Your task to perform on an android device: Go to Yahoo.com Image 0: 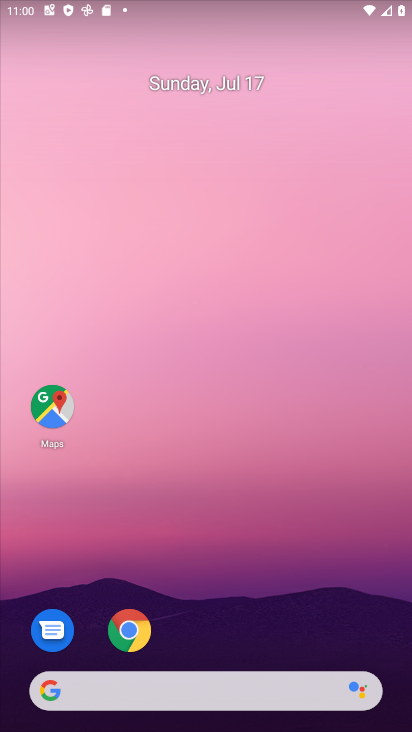
Step 0: drag from (225, 646) to (248, 135)
Your task to perform on an android device: Go to Yahoo.com Image 1: 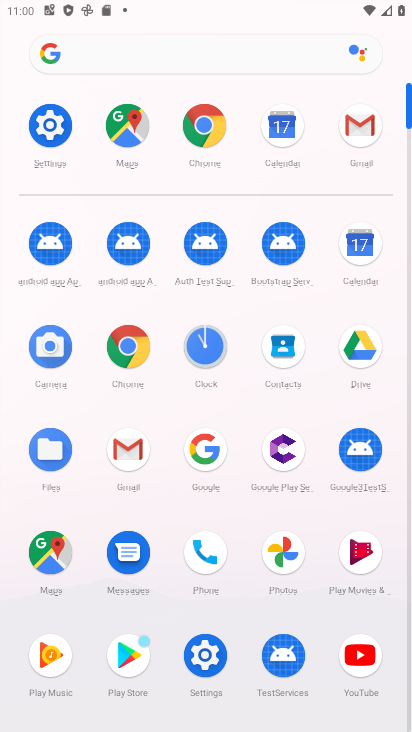
Step 1: click (216, 656)
Your task to perform on an android device: Go to Yahoo.com Image 2: 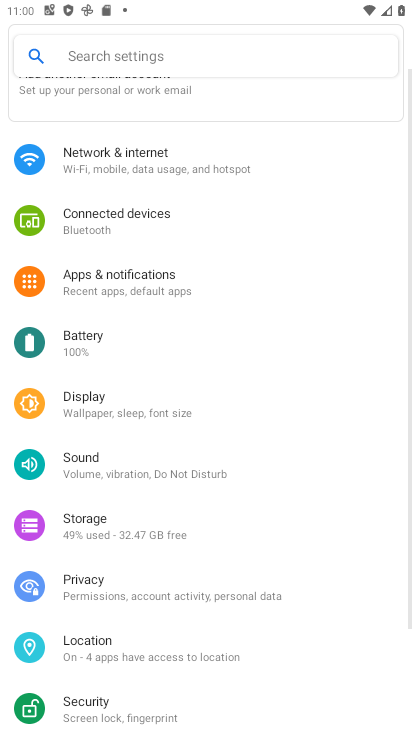
Step 2: press home button
Your task to perform on an android device: Go to Yahoo.com Image 3: 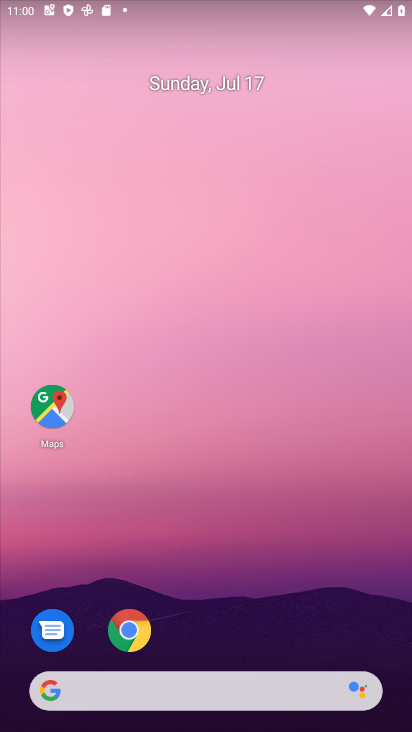
Step 3: click (152, 637)
Your task to perform on an android device: Go to Yahoo.com Image 4: 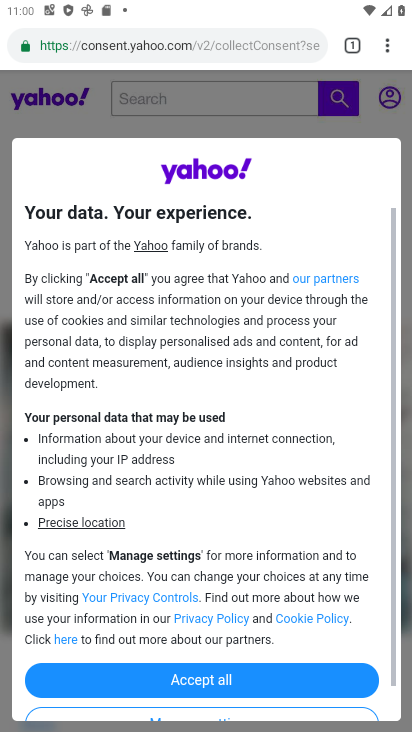
Step 4: task complete